Your task to perform on an android device: Show me productivity apps on the Play Store Image 0: 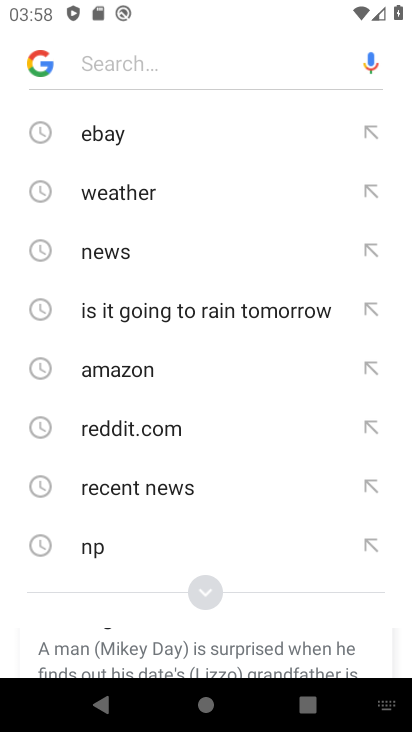
Step 0: press home button
Your task to perform on an android device: Show me productivity apps on the Play Store Image 1: 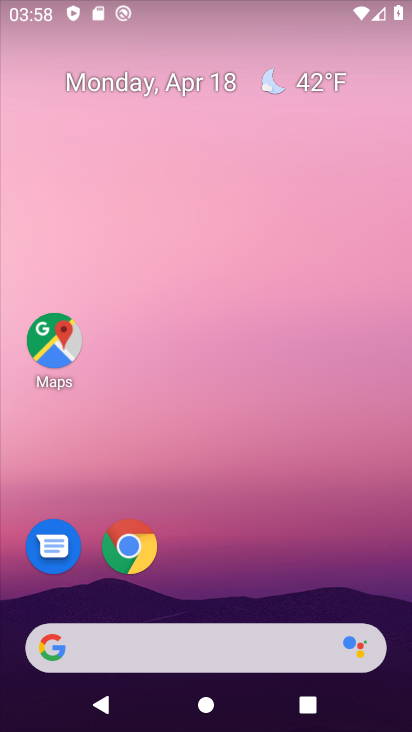
Step 1: drag from (232, 480) to (241, 335)
Your task to perform on an android device: Show me productivity apps on the Play Store Image 2: 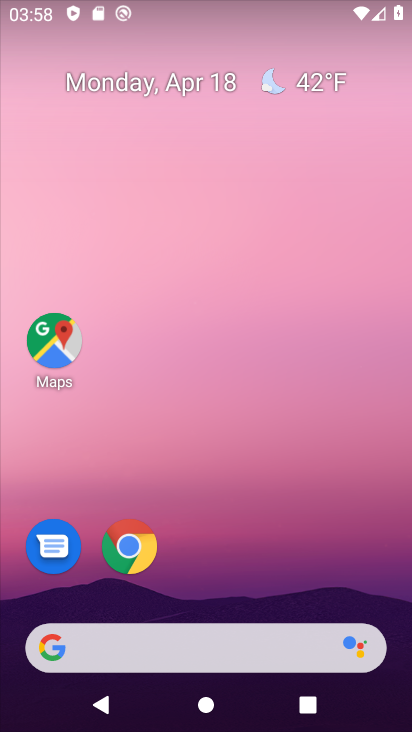
Step 2: click (230, 240)
Your task to perform on an android device: Show me productivity apps on the Play Store Image 3: 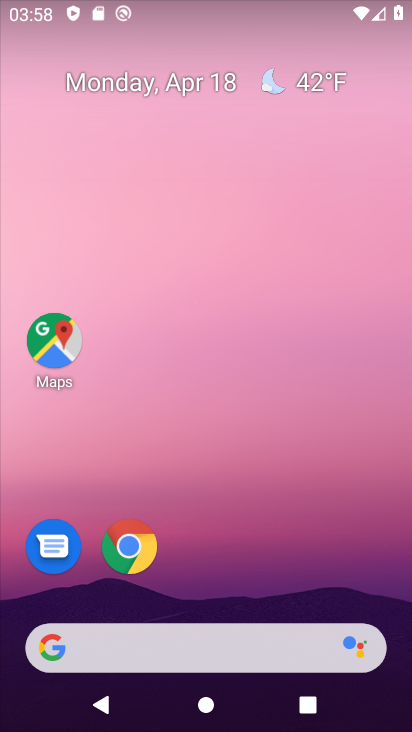
Step 3: drag from (192, 555) to (183, 244)
Your task to perform on an android device: Show me productivity apps on the Play Store Image 4: 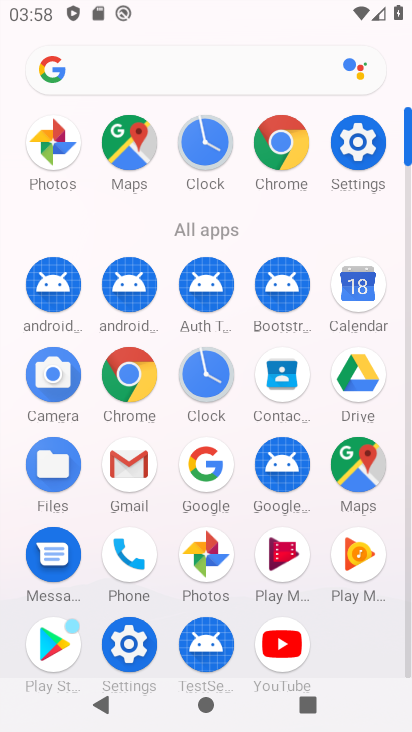
Step 4: click (63, 636)
Your task to perform on an android device: Show me productivity apps on the Play Store Image 5: 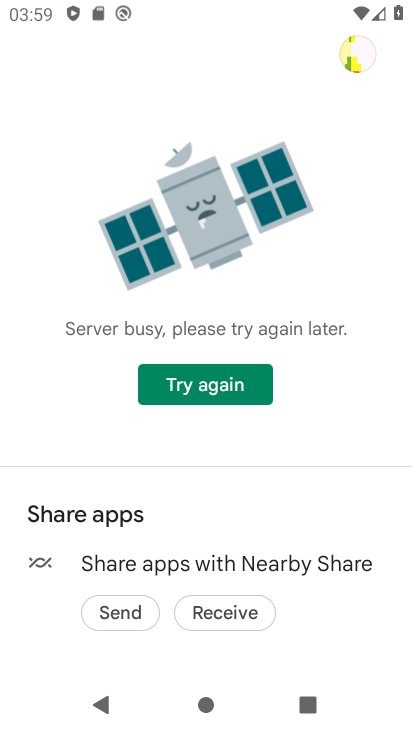
Step 5: press back button
Your task to perform on an android device: Show me productivity apps on the Play Store Image 6: 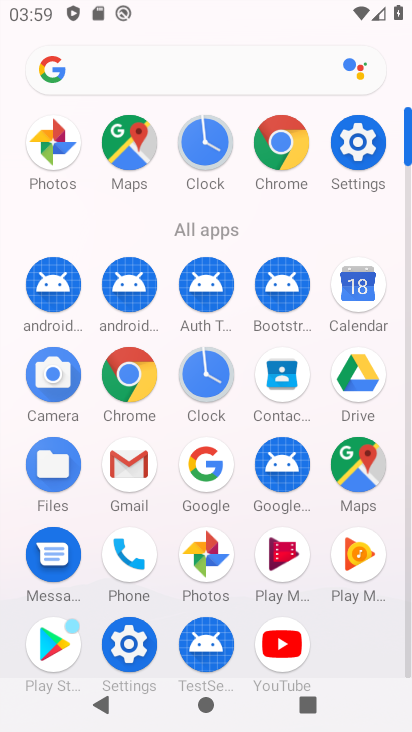
Step 6: press back button
Your task to perform on an android device: Show me productivity apps on the Play Store Image 7: 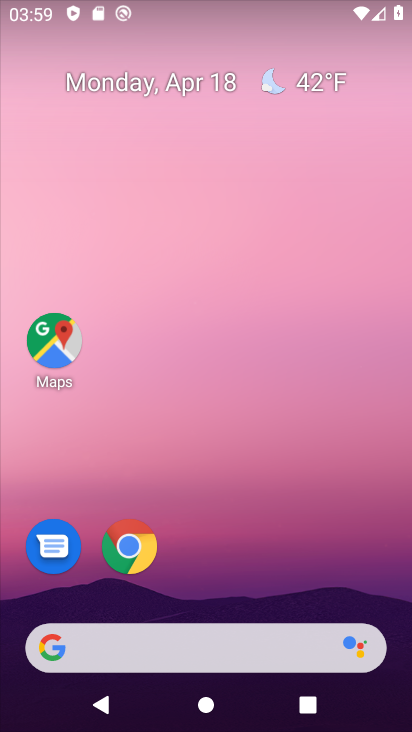
Step 7: click (240, 252)
Your task to perform on an android device: Show me productivity apps on the Play Store Image 8: 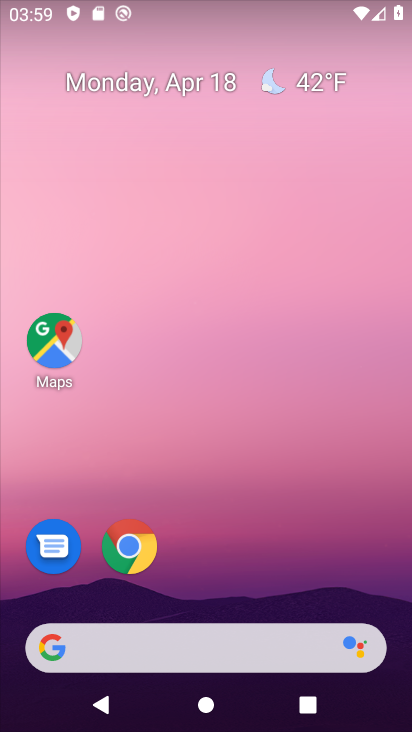
Step 8: drag from (224, 458) to (242, 329)
Your task to perform on an android device: Show me productivity apps on the Play Store Image 9: 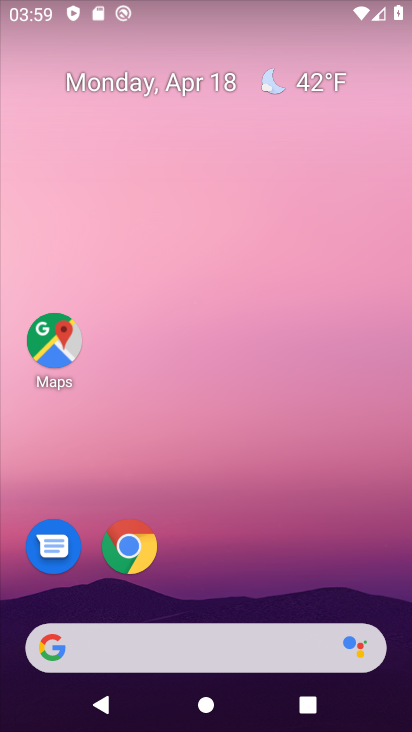
Step 9: drag from (273, 496) to (249, 132)
Your task to perform on an android device: Show me productivity apps on the Play Store Image 10: 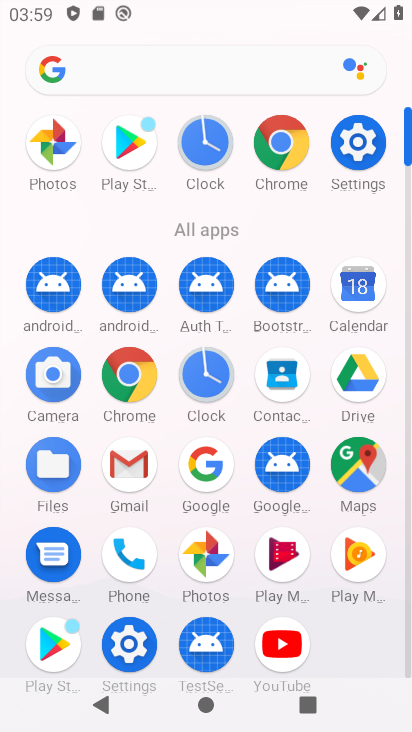
Step 10: click (57, 637)
Your task to perform on an android device: Show me productivity apps on the Play Store Image 11: 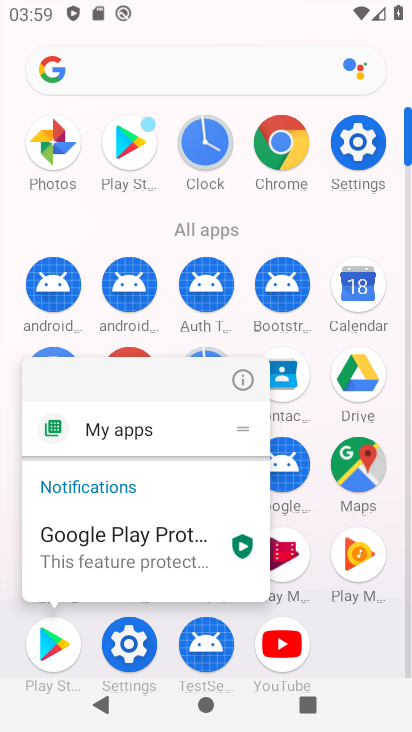
Step 11: click (56, 631)
Your task to perform on an android device: Show me productivity apps on the Play Store Image 12: 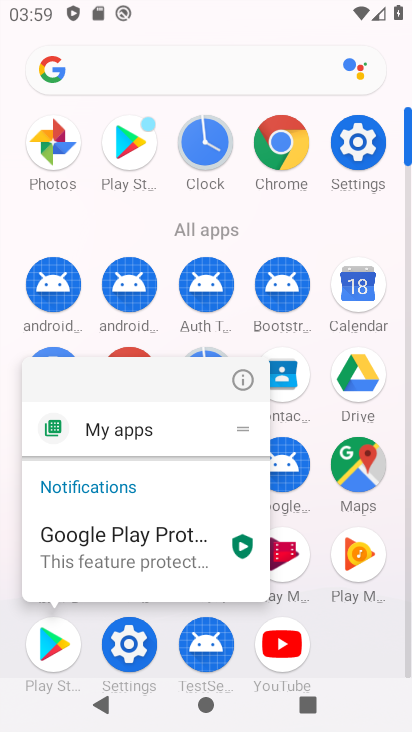
Step 12: click (56, 631)
Your task to perform on an android device: Show me productivity apps on the Play Store Image 13: 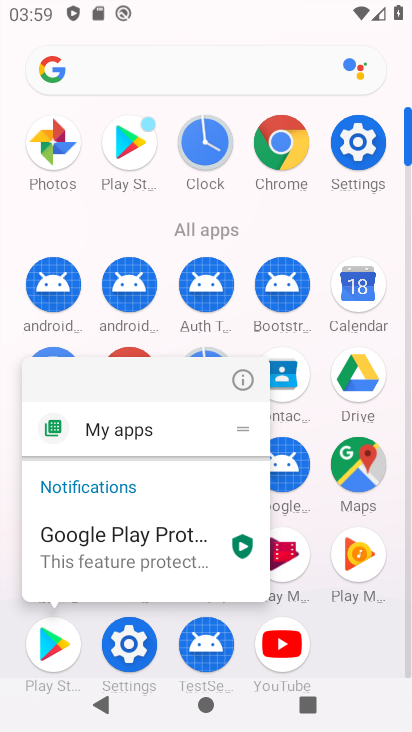
Step 13: click (52, 654)
Your task to perform on an android device: Show me productivity apps on the Play Store Image 14: 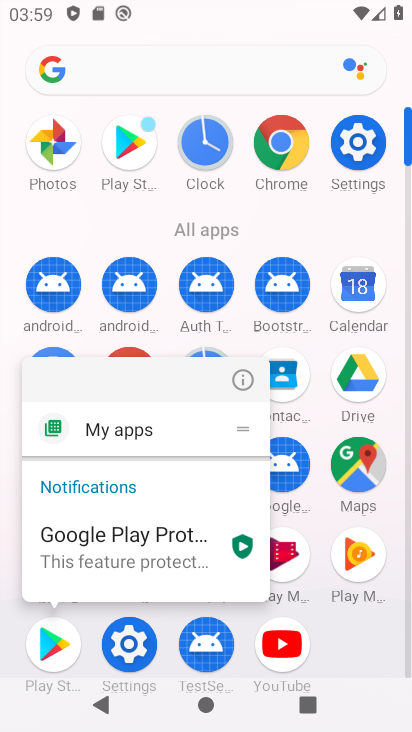
Step 14: click (52, 654)
Your task to perform on an android device: Show me productivity apps on the Play Store Image 15: 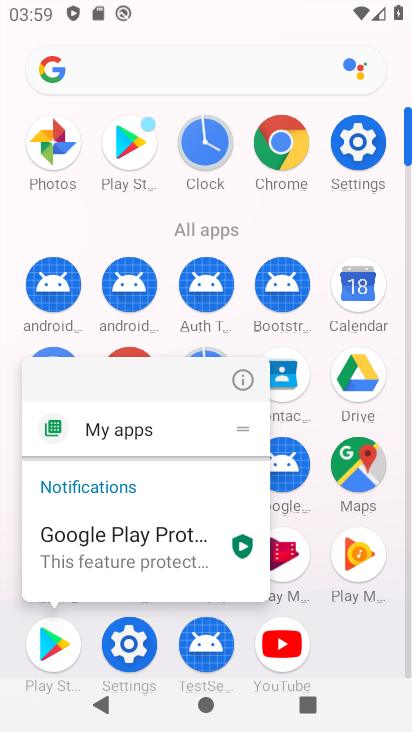
Step 15: click (62, 636)
Your task to perform on an android device: Show me productivity apps on the Play Store Image 16: 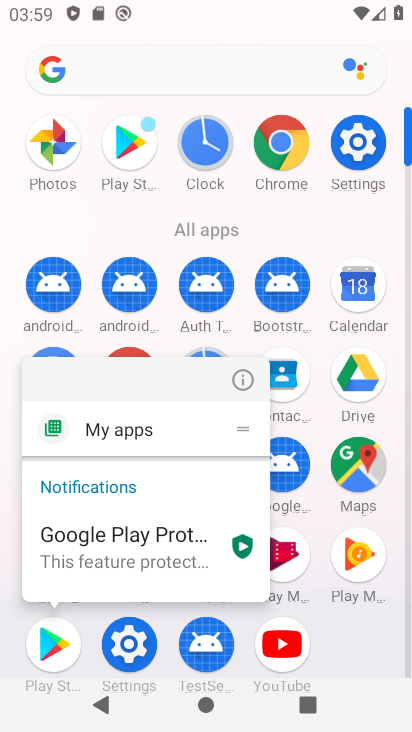
Step 16: click (55, 635)
Your task to perform on an android device: Show me productivity apps on the Play Store Image 17: 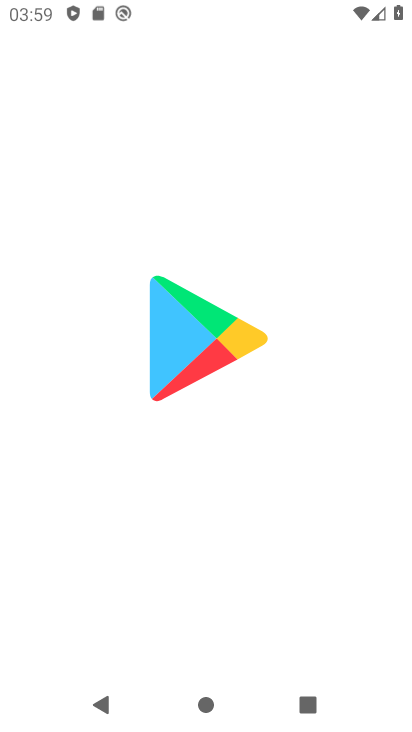
Step 17: click (59, 618)
Your task to perform on an android device: Show me productivity apps on the Play Store Image 18: 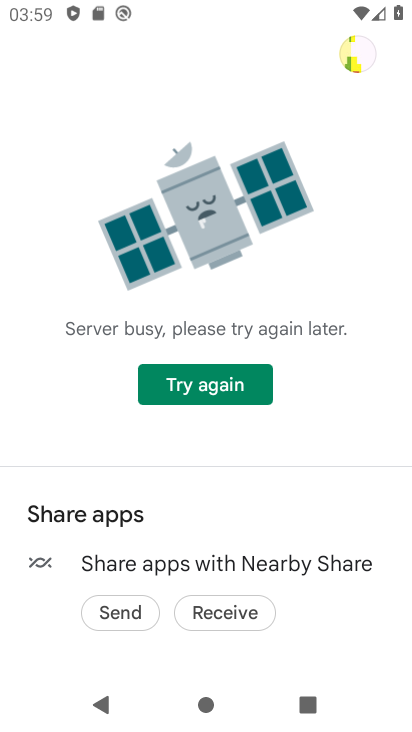
Step 18: task complete